Your task to perform on an android device: Go to notification settings Image 0: 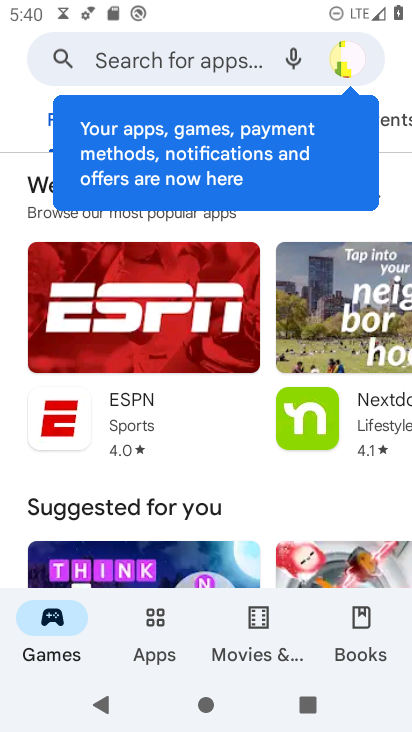
Step 0: press back button
Your task to perform on an android device: Go to notification settings Image 1: 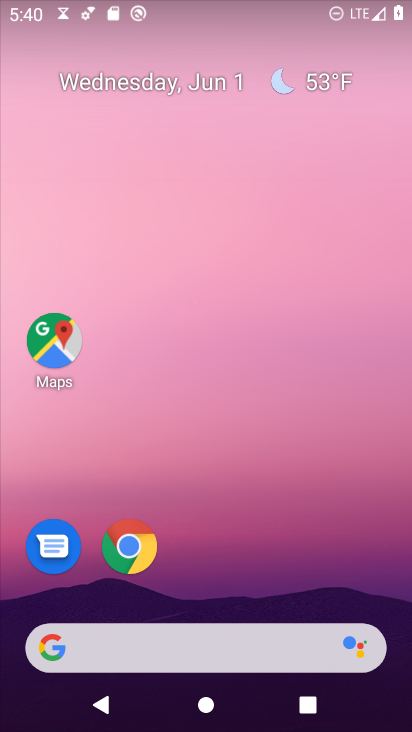
Step 1: drag from (317, 543) to (214, 4)
Your task to perform on an android device: Go to notification settings Image 2: 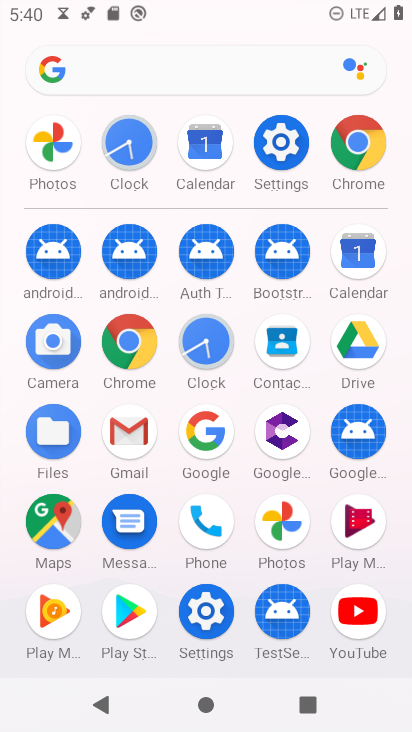
Step 2: click (205, 605)
Your task to perform on an android device: Go to notification settings Image 3: 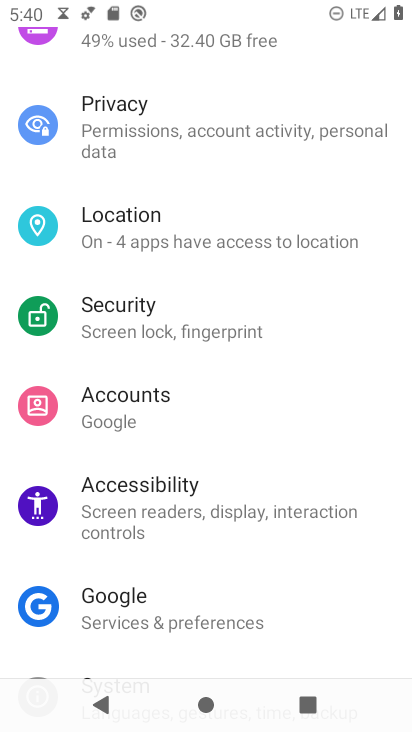
Step 3: drag from (240, 159) to (257, 603)
Your task to perform on an android device: Go to notification settings Image 4: 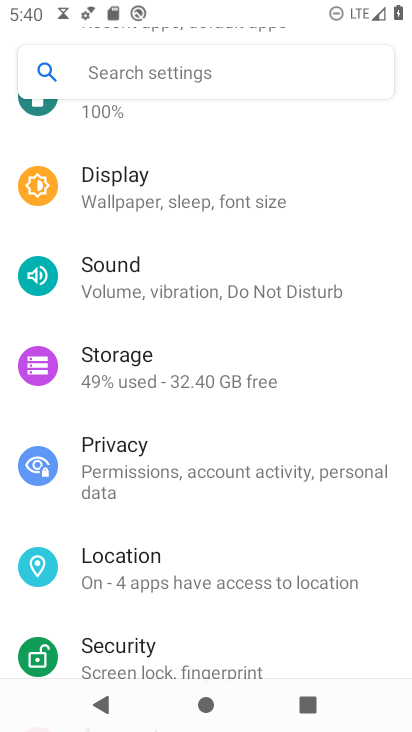
Step 4: drag from (301, 266) to (272, 660)
Your task to perform on an android device: Go to notification settings Image 5: 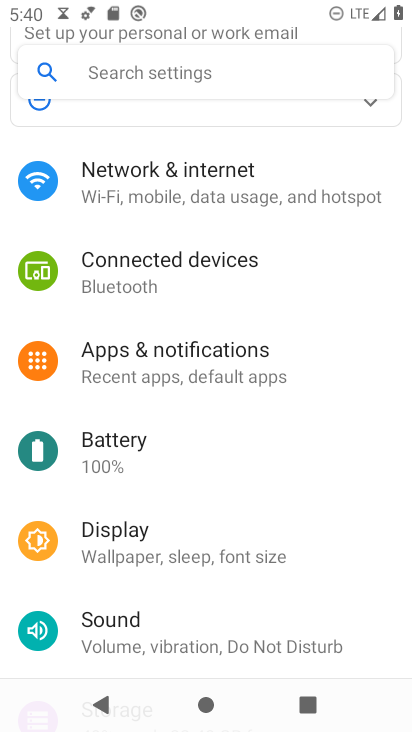
Step 5: click (228, 340)
Your task to perform on an android device: Go to notification settings Image 6: 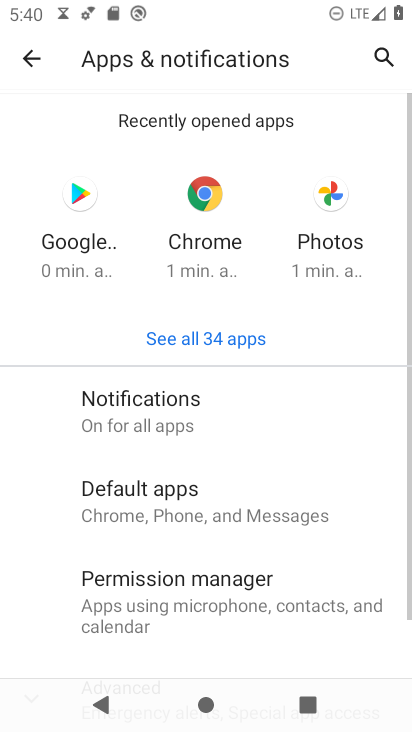
Step 6: click (193, 429)
Your task to perform on an android device: Go to notification settings Image 7: 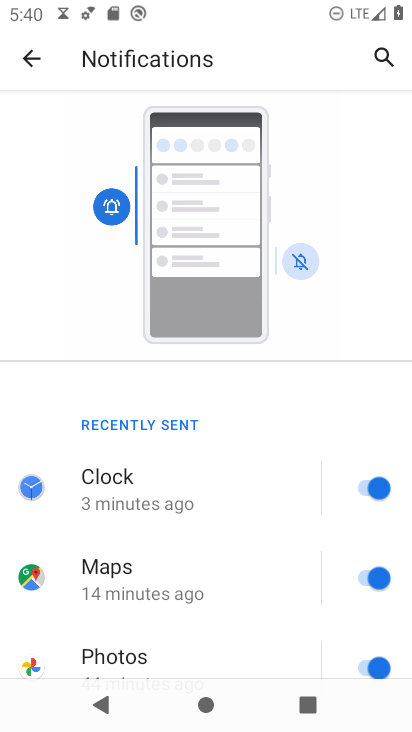
Step 7: drag from (267, 560) to (258, 65)
Your task to perform on an android device: Go to notification settings Image 8: 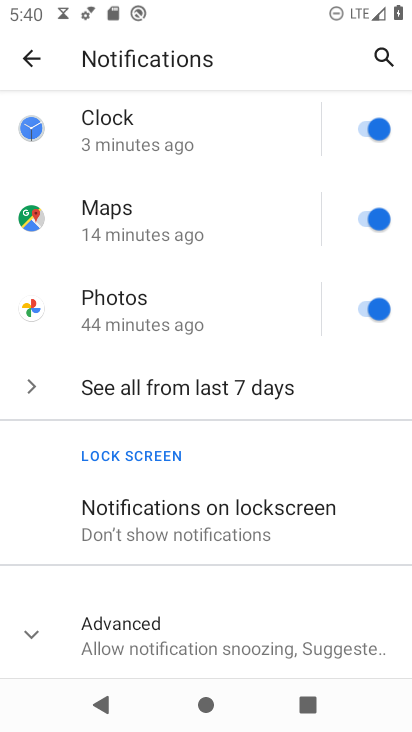
Step 8: click (77, 628)
Your task to perform on an android device: Go to notification settings Image 9: 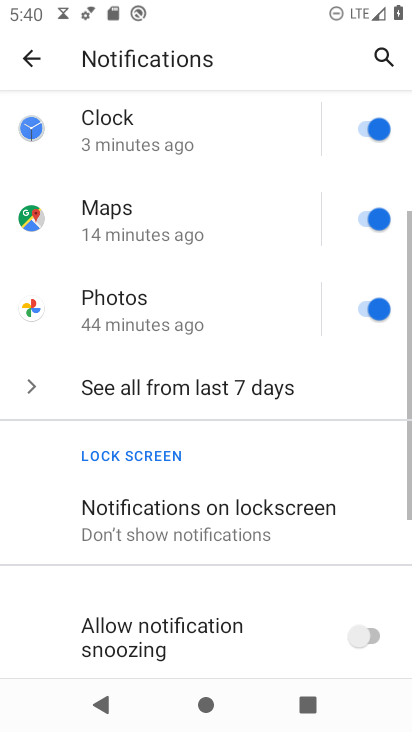
Step 9: task complete